Your task to perform on an android device: turn off javascript in the chrome app Image 0: 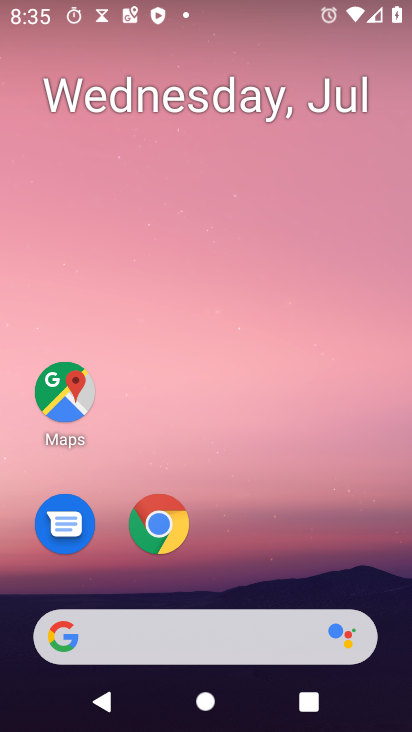
Step 0: press home button
Your task to perform on an android device: turn off javascript in the chrome app Image 1: 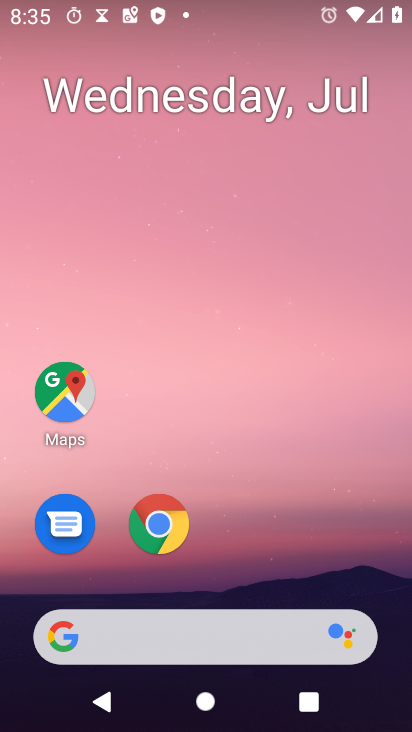
Step 1: click (162, 534)
Your task to perform on an android device: turn off javascript in the chrome app Image 2: 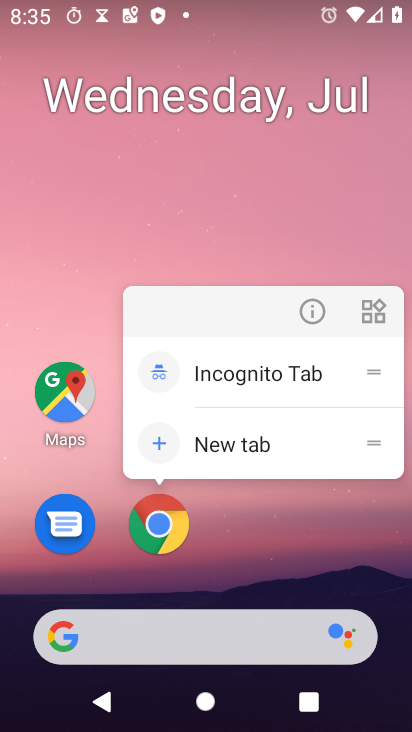
Step 2: click (163, 519)
Your task to perform on an android device: turn off javascript in the chrome app Image 3: 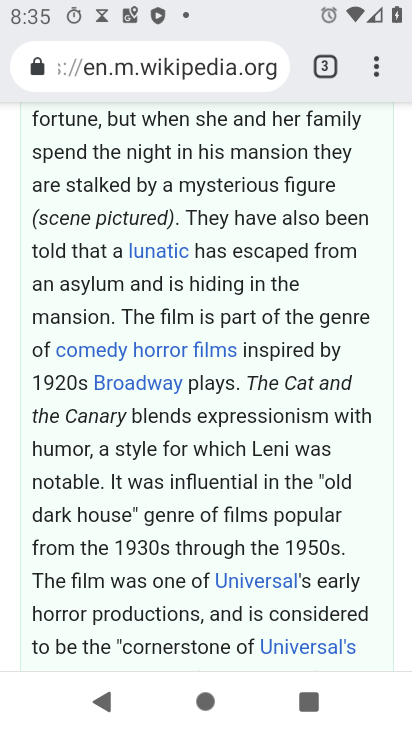
Step 3: drag from (384, 60) to (199, 528)
Your task to perform on an android device: turn off javascript in the chrome app Image 4: 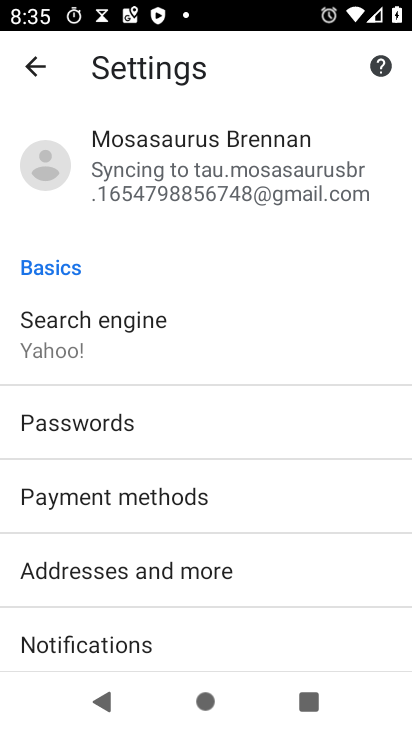
Step 4: drag from (200, 597) to (262, 115)
Your task to perform on an android device: turn off javascript in the chrome app Image 5: 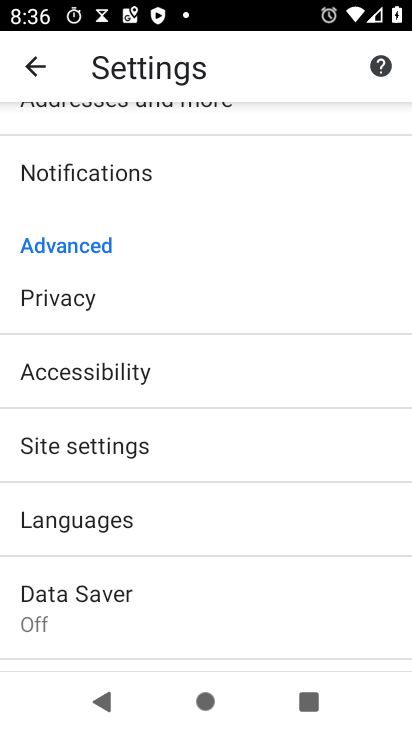
Step 5: click (113, 445)
Your task to perform on an android device: turn off javascript in the chrome app Image 6: 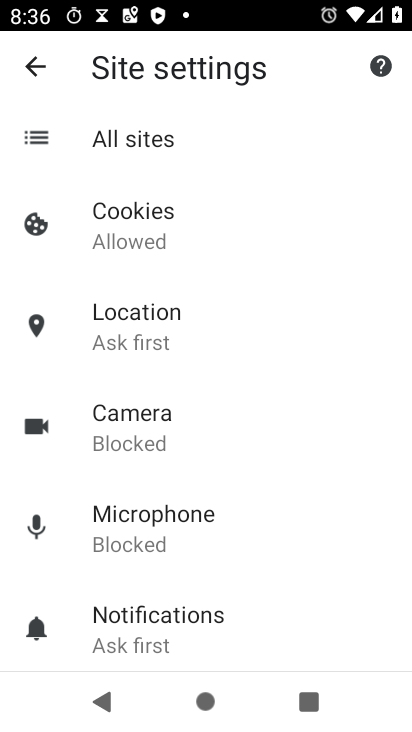
Step 6: drag from (218, 564) to (230, 249)
Your task to perform on an android device: turn off javascript in the chrome app Image 7: 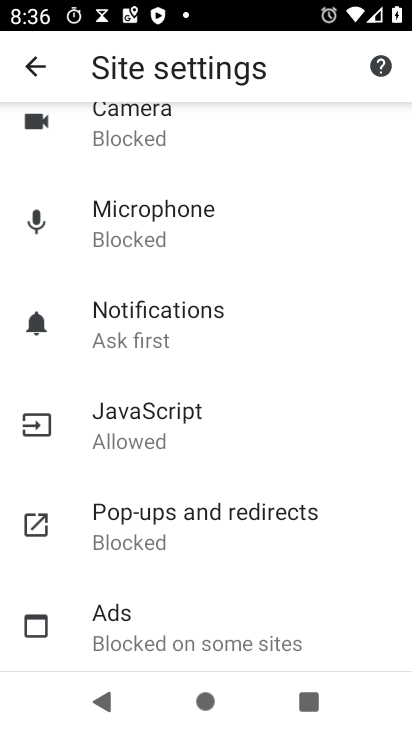
Step 7: click (131, 426)
Your task to perform on an android device: turn off javascript in the chrome app Image 8: 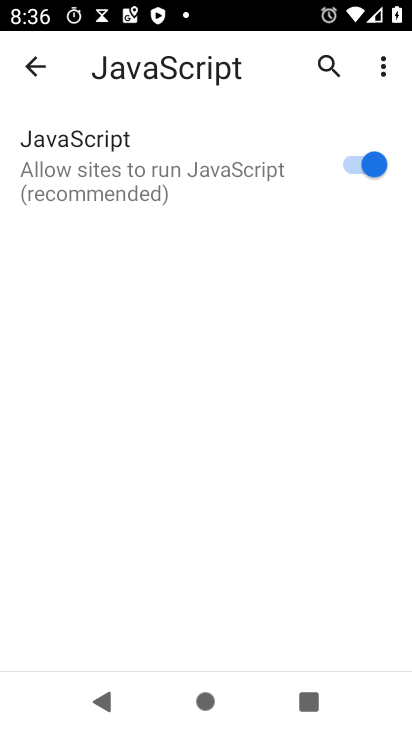
Step 8: click (355, 159)
Your task to perform on an android device: turn off javascript in the chrome app Image 9: 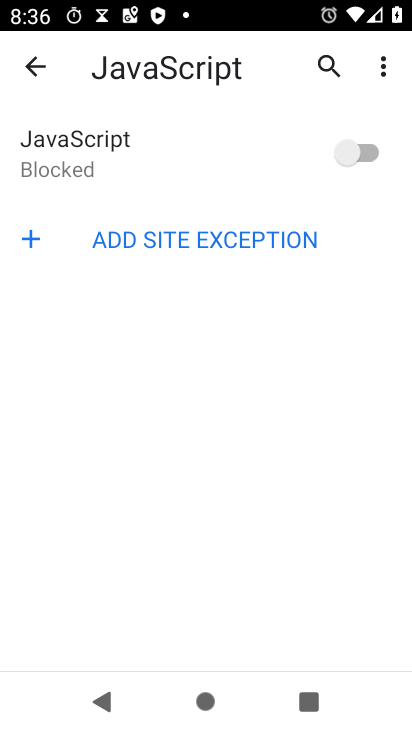
Step 9: task complete